Your task to perform on an android device: turn off javascript in the chrome app Image 0: 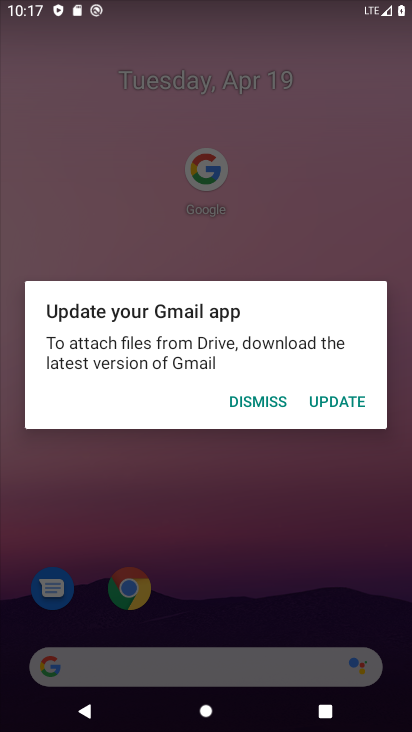
Step 0: press home button
Your task to perform on an android device: turn off javascript in the chrome app Image 1: 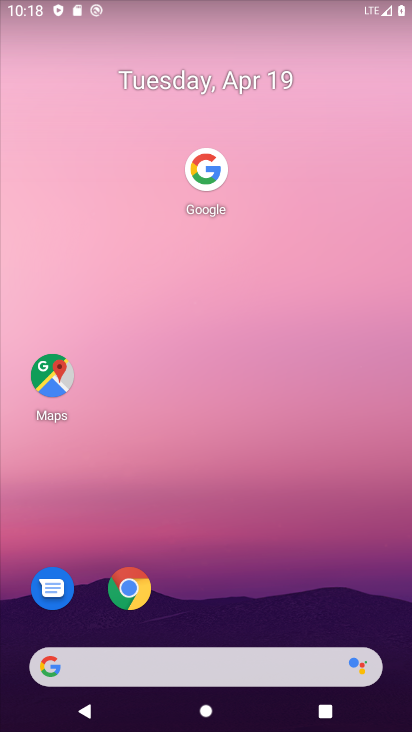
Step 1: click (125, 587)
Your task to perform on an android device: turn off javascript in the chrome app Image 2: 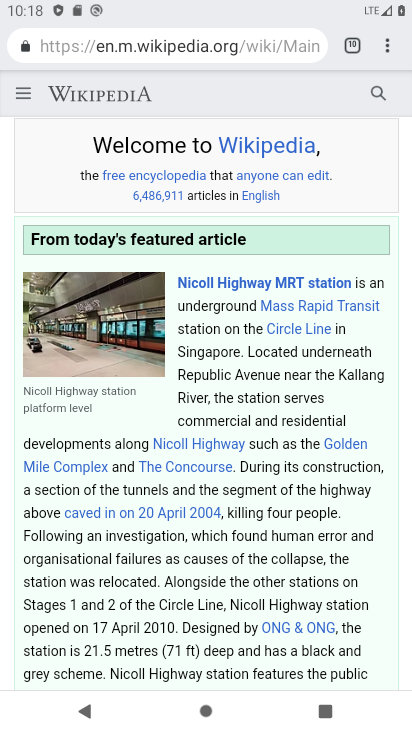
Step 2: click (386, 43)
Your task to perform on an android device: turn off javascript in the chrome app Image 3: 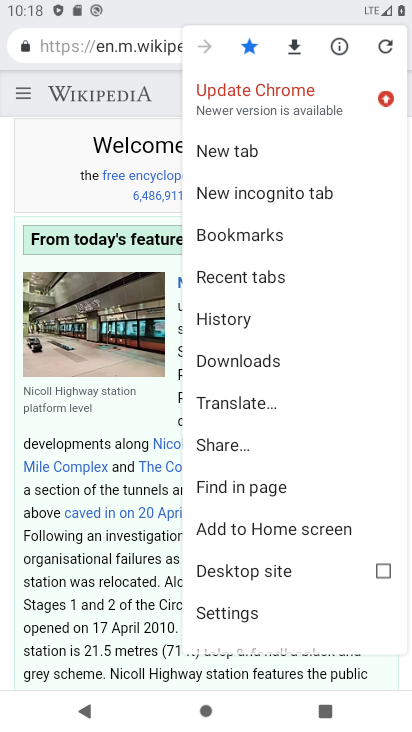
Step 3: click (239, 609)
Your task to perform on an android device: turn off javascript in the chrome app Image 4: 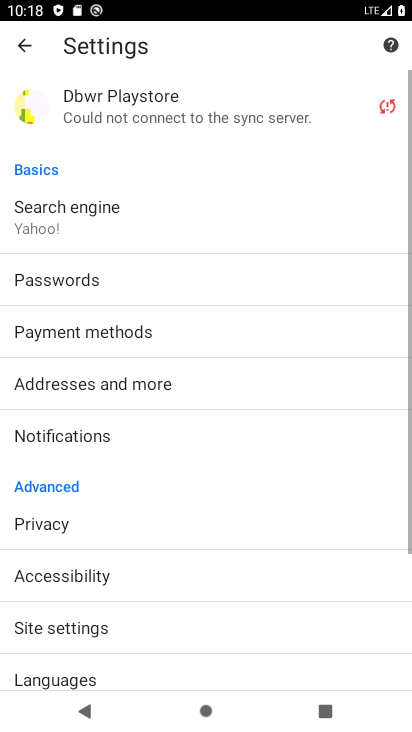
Step 4: drag from (200, 563) to (189, 193)
Your task to perform on an android device: turn off javascript in the chrome app Image 5: 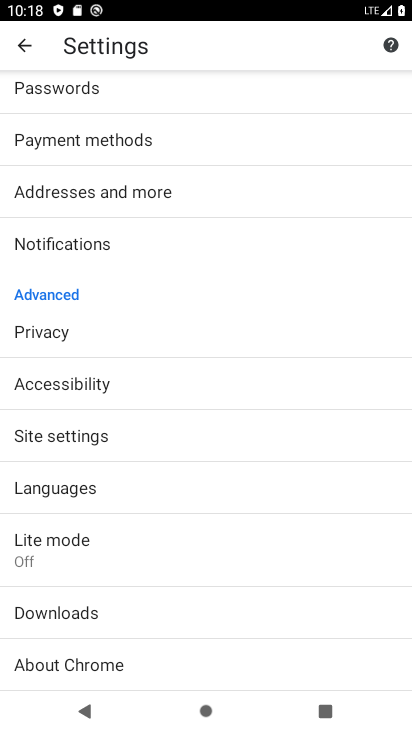
Step 5: click (50, 434)
Your task to perform on an android device: turn off javascript in the chrome app Image 6: 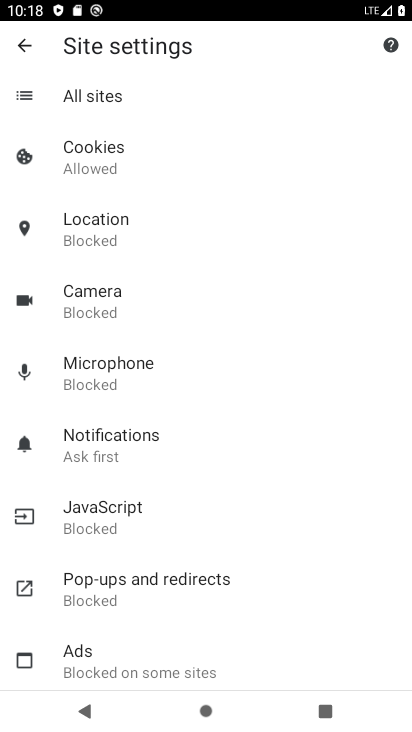
Step 6: click (103, 504)
Your task to perform on an android device: turn off javascript in the chrome app Image 7: 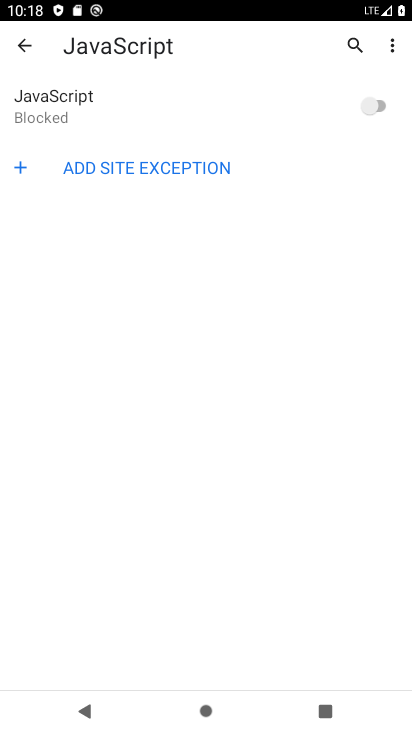
Step 7: task complete